Your task to perform on an android device: What's the weather today? Image 0: 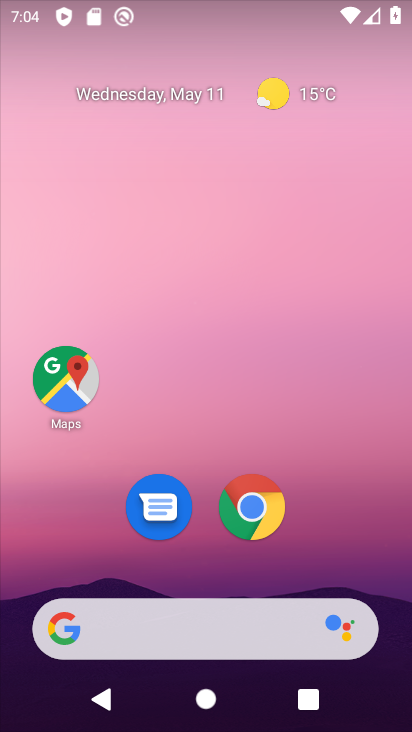
Step 0: drag from (270, 643) to (200, 25)
Your task to perform on an android device: What's the weather today? Image 1: 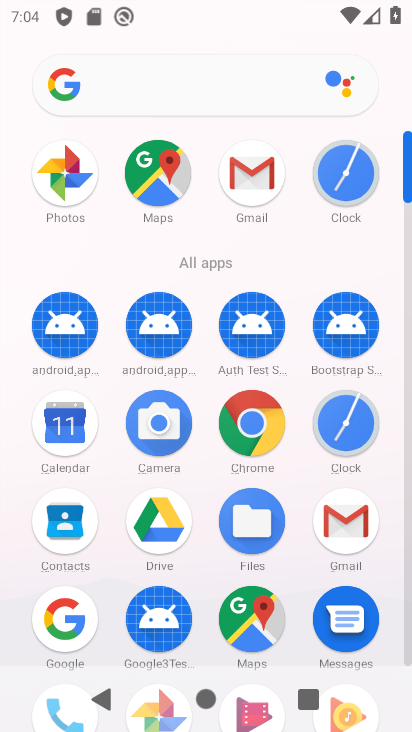
Step 1: click (147, 96)
Your task to perform on an android device: What's the weather today? Image 2: 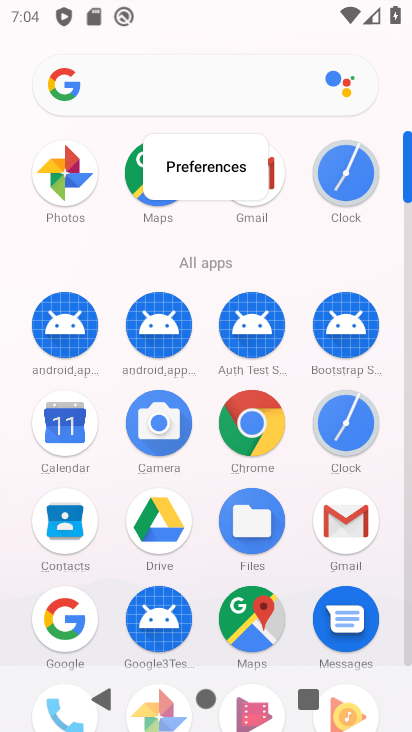
Step 2: click (147, 96)
Your task to perform on an android device: What's the weather today? Image 3: 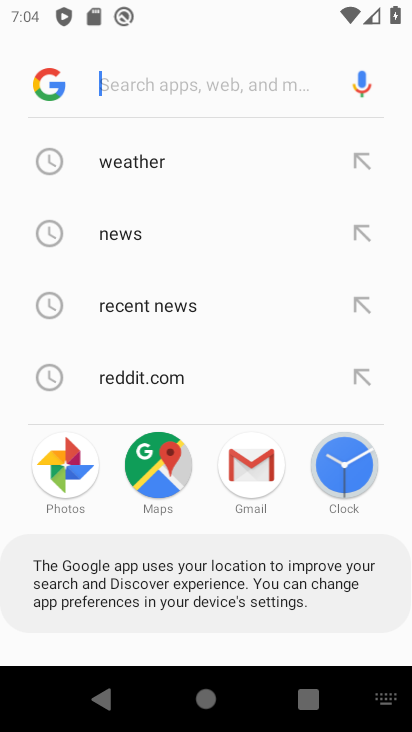
Step 3: click (135, 173)
Your task to perform on an android device: What's the weather today? Image 4: 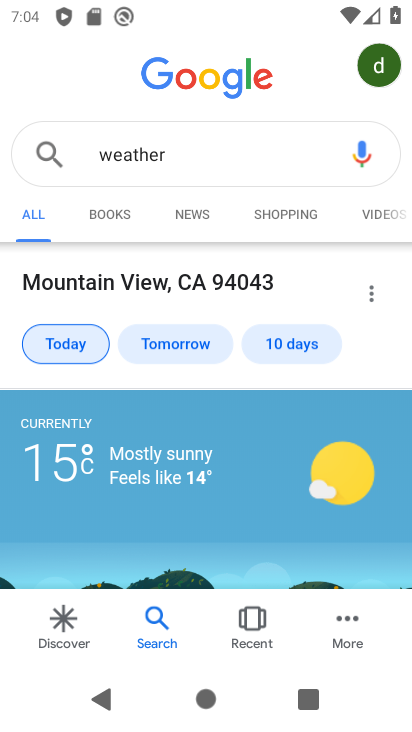
Step 4: click (94, 341)
Your task to perform on an android device: What's the weather today? Image 5: 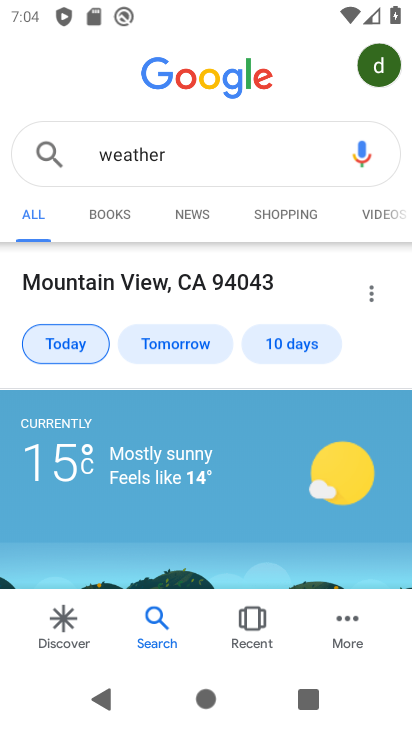
Step 5: task complete